Your task to perform on an android device: Open Google Chrome Image 0: 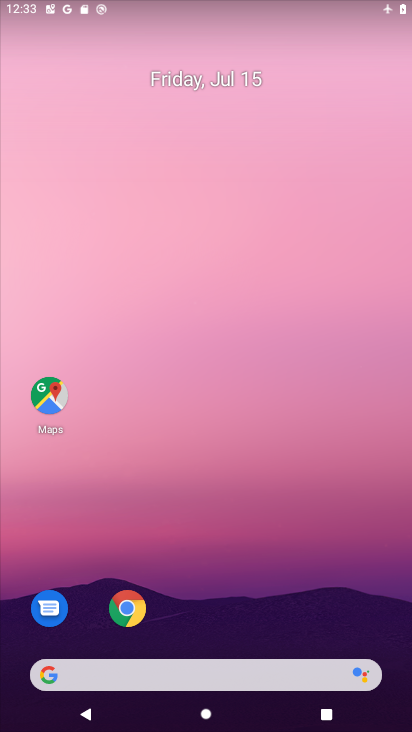
Step 0: click (122, 608)
Your task to perform on an android device: Open Google Chrome Image 1: 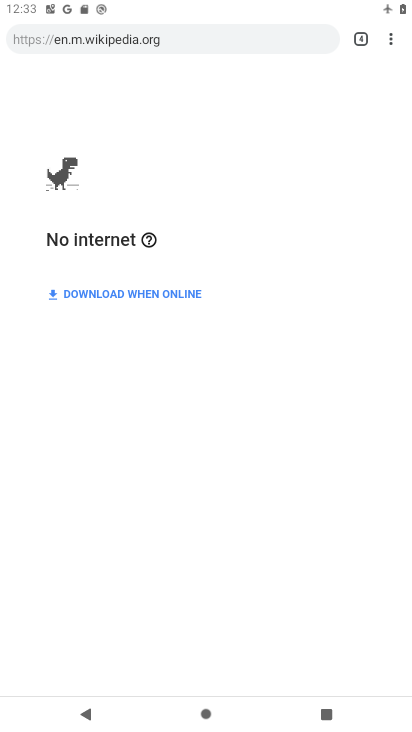
Step 1: click (394, 38)
Your task to perform on an android device: Open Google Chrome Image 2: 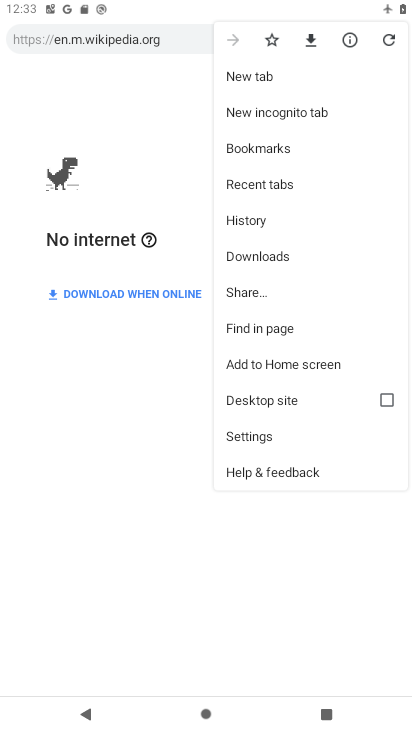
Step 2: click (251, 69)
Your task to perform on an android device: Open Google Chrome Image 3: 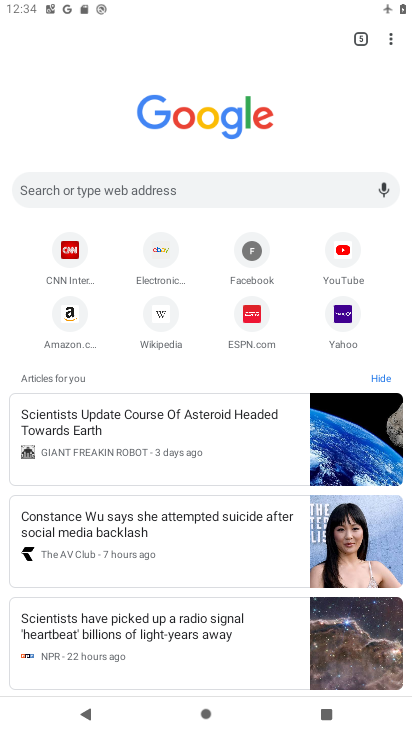
Step 3: task complete